Your task to perform on an android device: Turn on the flashlight Image 0: 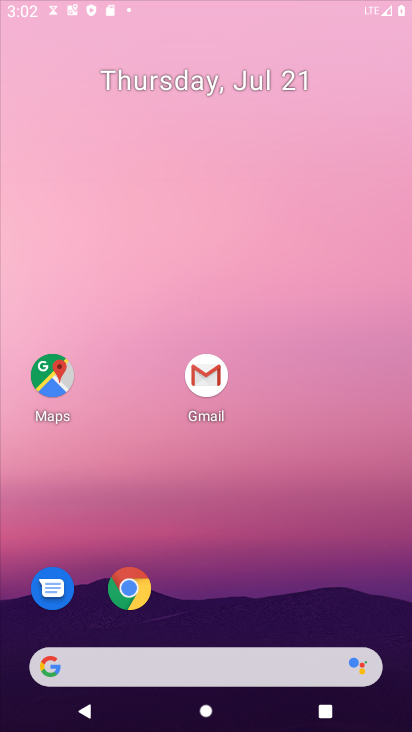
Step 0: click (185, 21)
Your task to perform on an android device: Turn on the flashlight Image 1: 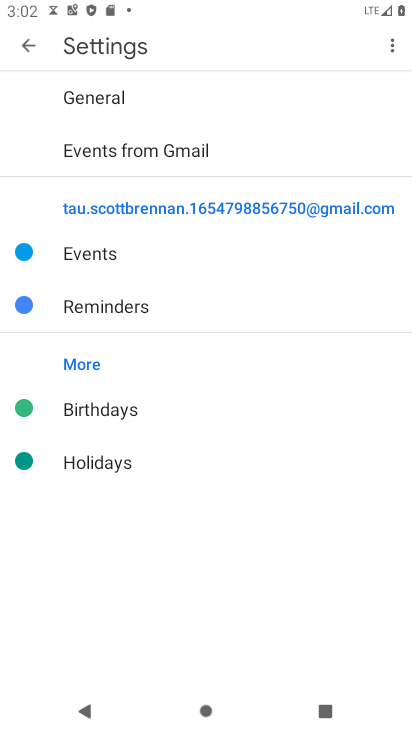
Step 1: drag from (204, 584) to (256, 99)
Your task to perform on an android device: Turn on the flashlight Image 2: 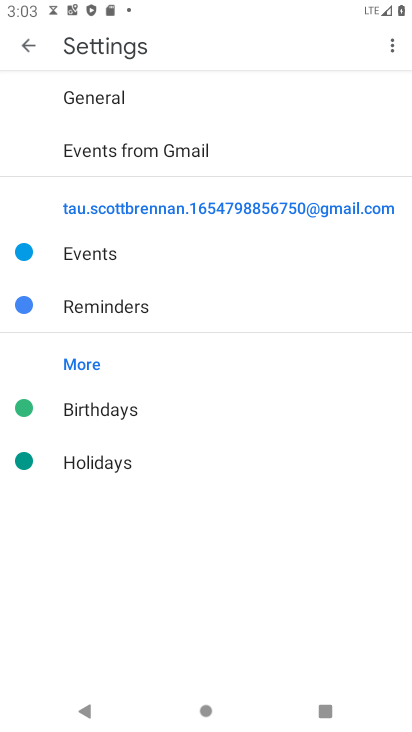
Step 2: press home button
Your task to perform on an android device: Turn on the flashlight Image 3: 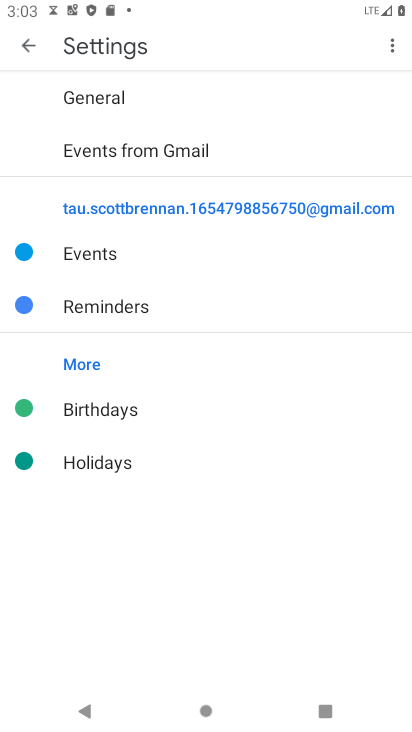
Step 3: press home button
Your task to perform on an android device: Turn on the flashlight Image 4: 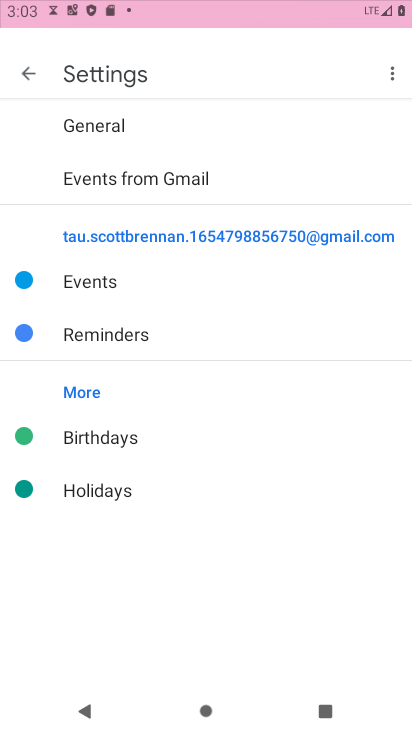
Step 4: click (205, 207)
Your task to perform on an android device: Turn on the flashlight Image 5: 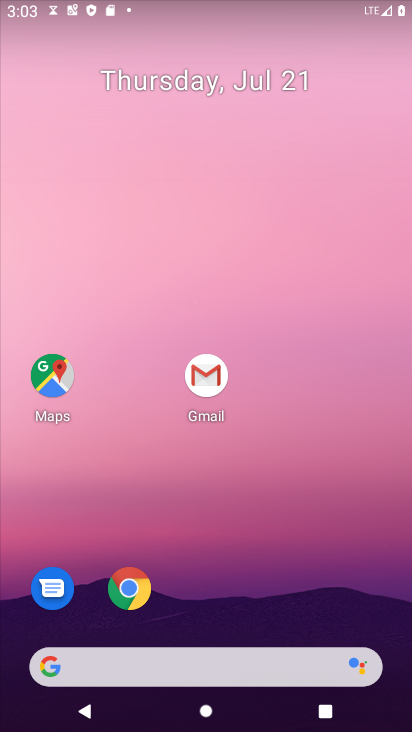
Step 5: drag from (239, 626) to (301, 227)
Your task to perform on an android device: Turn on the flashlight Image 6: 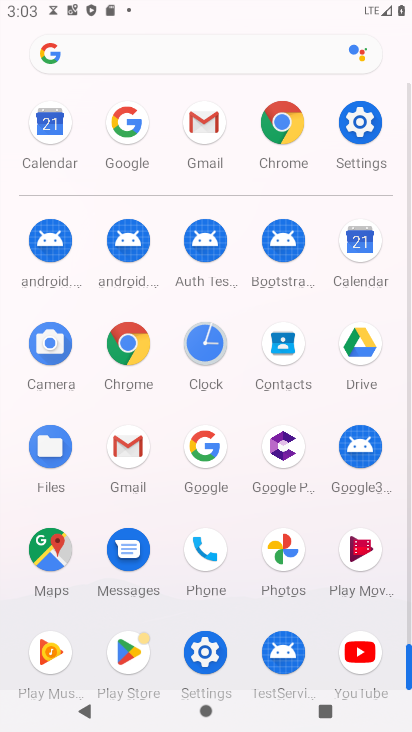
Step 6: drag from (158, 609) to (132, 225)
Your task to perform on an android device: Turn on the flashlight Image 7: 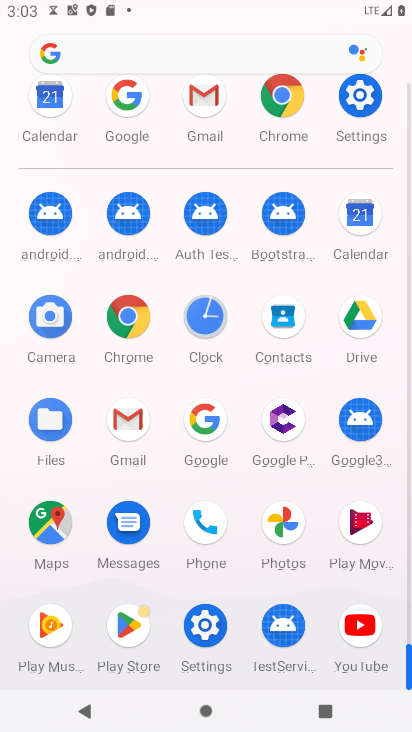
Step 7: drag from (248, 594) to (230, 299)
Your task to perform on an android device: Turn on the flashlight Image 8: 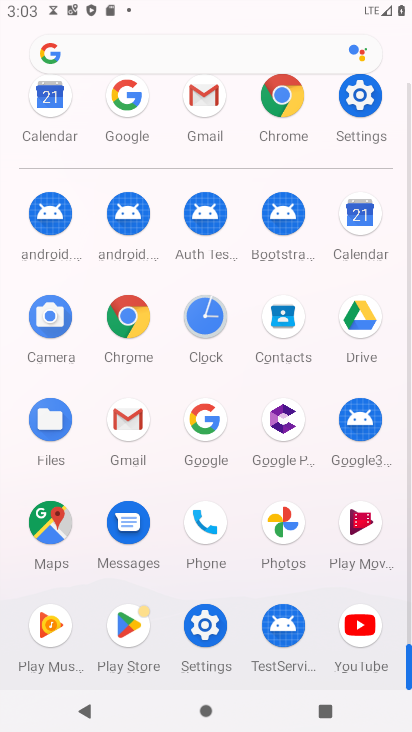
Step 8: click (197, 630)
Your task to perform on an android device: Turn on the flashlight Image 9: 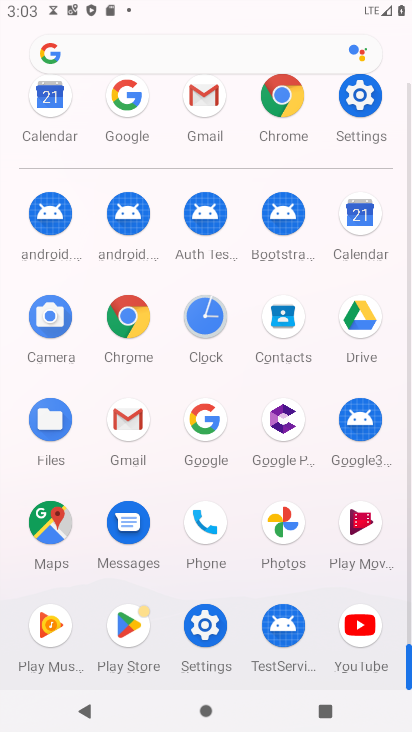
Step 9: click (197, 630)
Your task to perform on an android device: Turn on the flashlight Image 10: 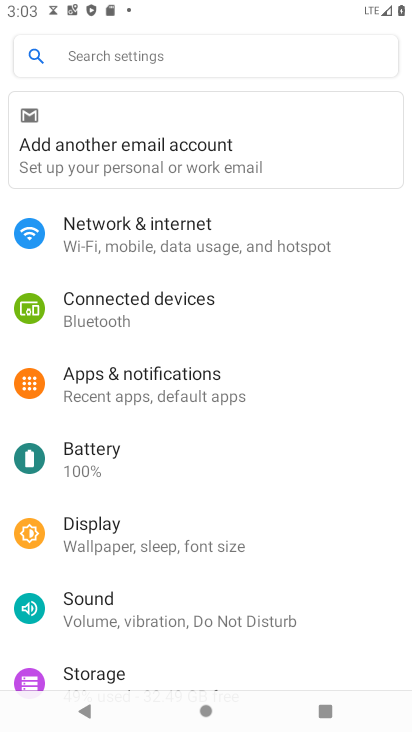
Step 10: drag from (224, 610) to (221, 276)
Your task to perform on an android device: Turn on the flashlight Image 11: 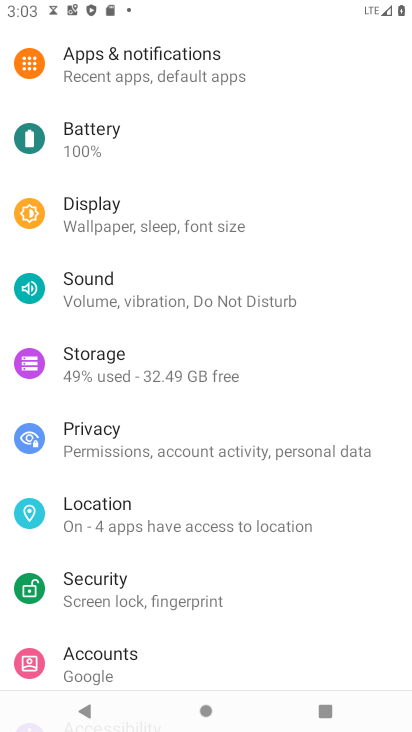
Step 11: drag from (190, 234) to (256, 708)
Your task to perform on an android device: Turn on the flashlight Image 12: 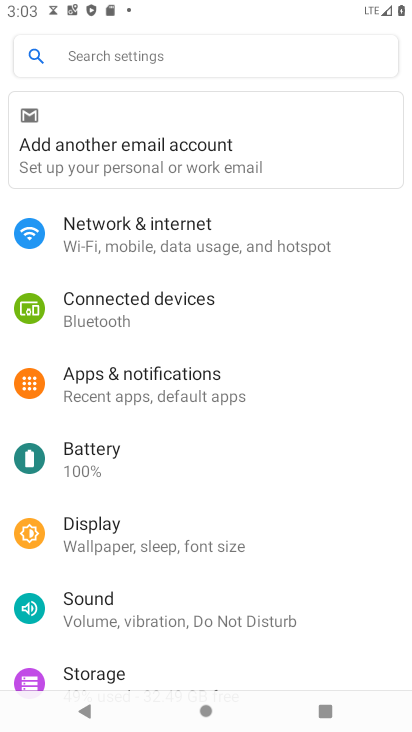
Step 12: click (168, 62)
Your task to perform on an android device: Turn on the flashlight Image 13: 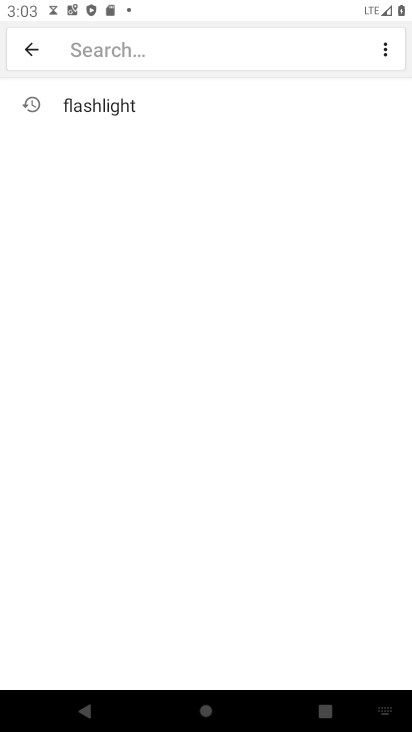
Step 13: click (104, 88)
Your task to perform on an android device: Turn on the flashlight Image 14: 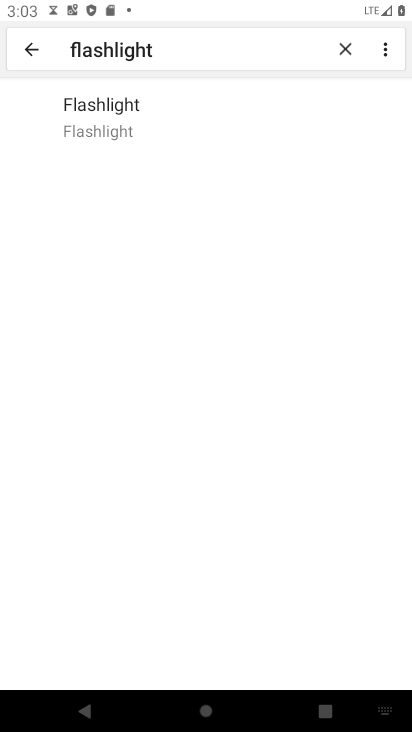
Step 14: click (219, 118)
Your task to perform on an android device: Turn on the flashlight Image 15: 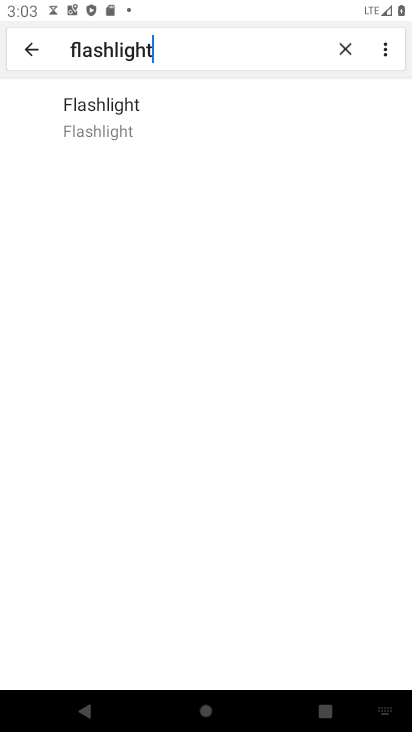
Step 15: task complete